Your task to perform on an android device: change the upload size in google photos Image 0: 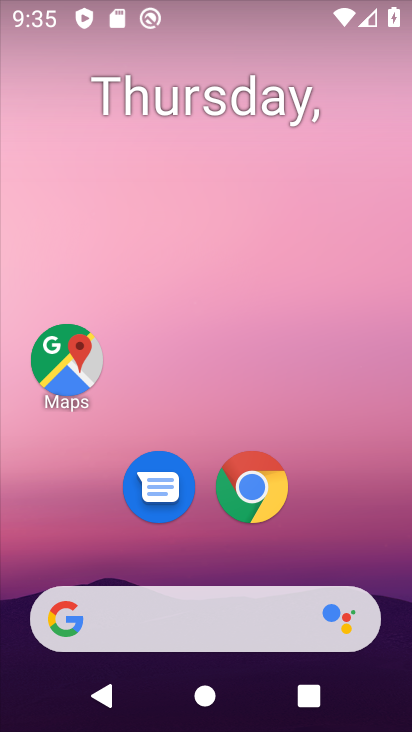
Step 0: drag from (331, 556) to (174, 240)
Your task to perform on an android device: change the upload size in google photos Image 1: 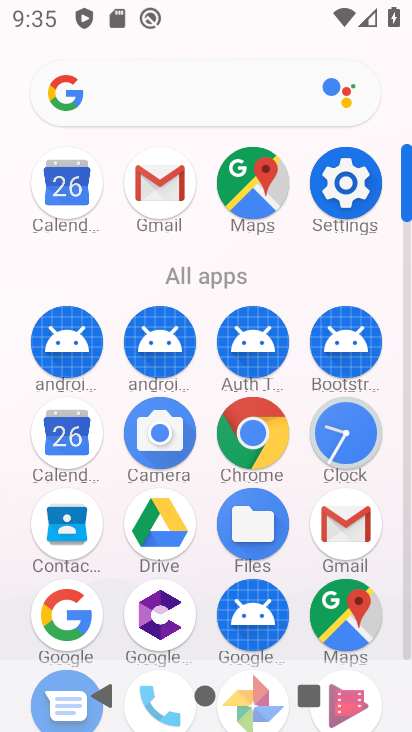
Step 1: click (407, 205)
Your task to perform on an android device: change the upload size in google photos Image 2: 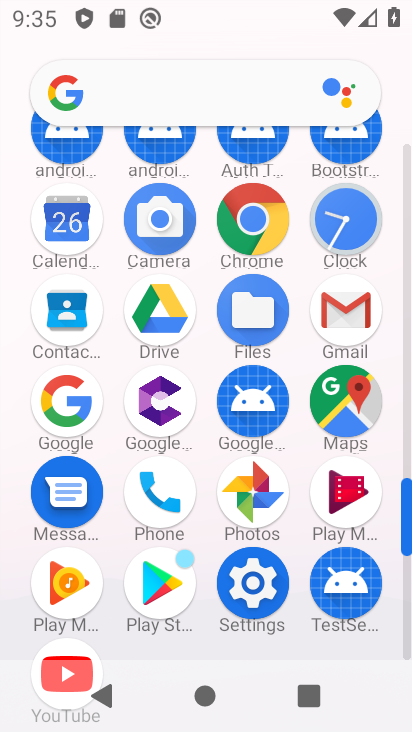
Step 2: click (245, 496)
Your task to perform on an android device: change the upload size in google photos Image 3: 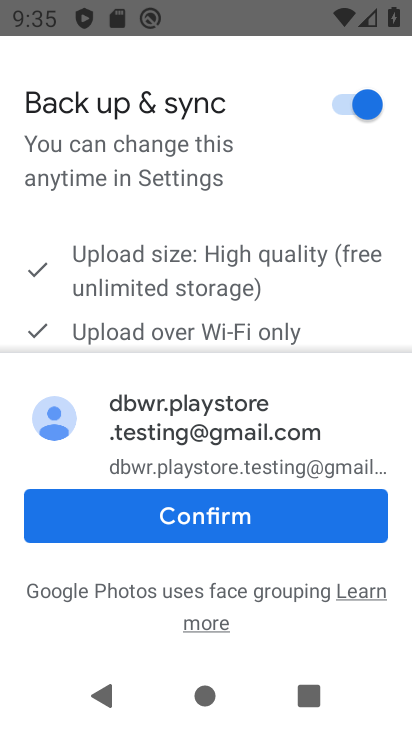
Step 3: click (245, 496)
Your task to perform on an android device: change the upload size in google photos Image 4: 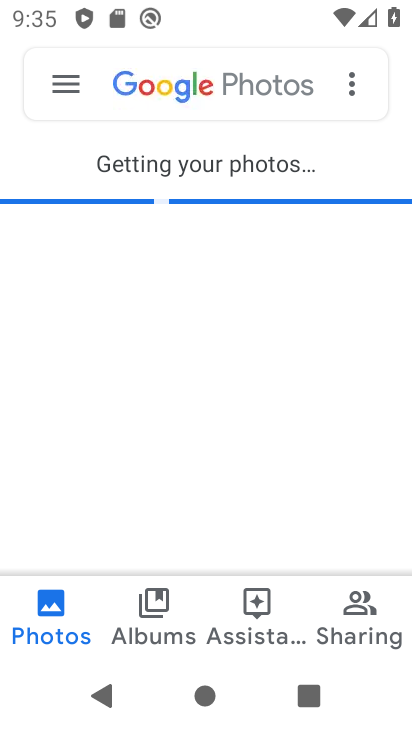
Step 4: click (41, 82)
Your task to perform on an android device: change the upload size in google photos Image 5: 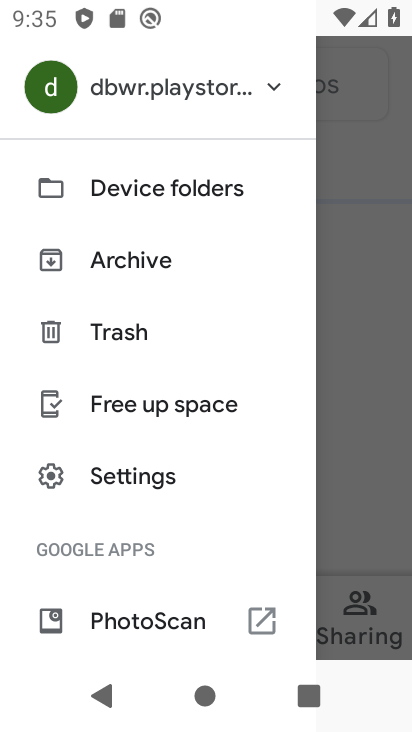
Step 5: click (112, 481)
Your task to perform on an android device: change the upload size in google photos Image 6: 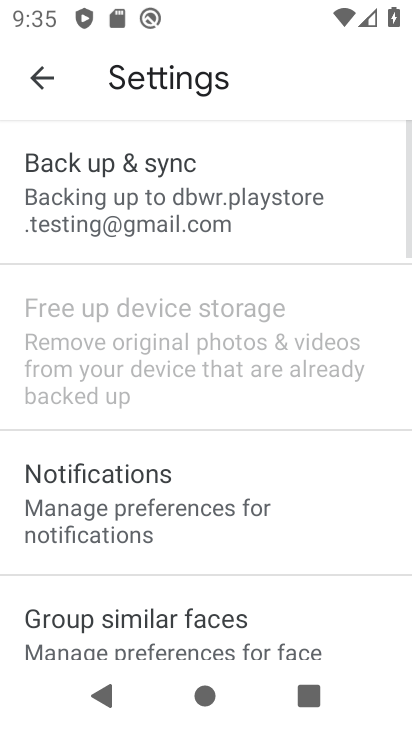
Step 6: click (139, 201)
Your task to perform on an android device: change the upload size in google photos Image 7: 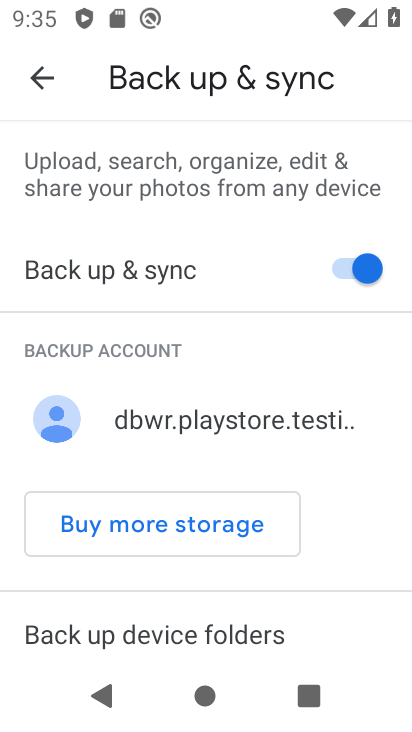
Step 7: drag from (227, 596) to (240, 177)
Your task to perform on an android device: change the upload size in google photos Image 8: 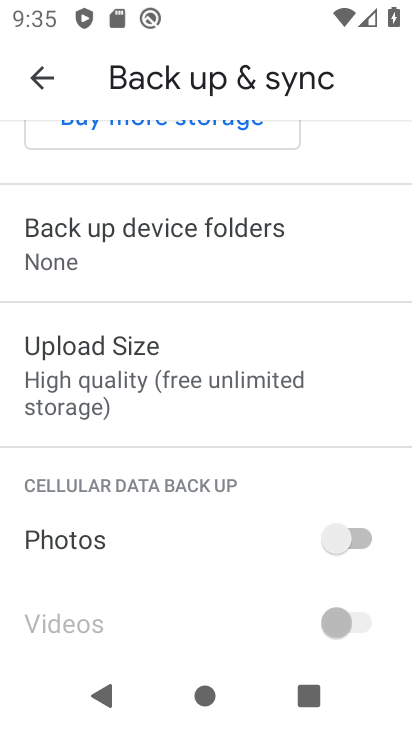
Step 8: click (182, 381)
Your task to perform on an android device: change the upload size in google photos Image 9: 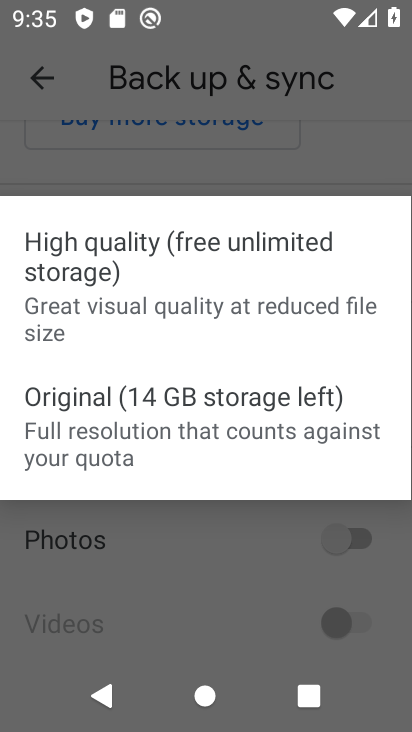
Step 9: click (155, 428)
Your task to perform on an android device: change the upload size in google photos Image 10: 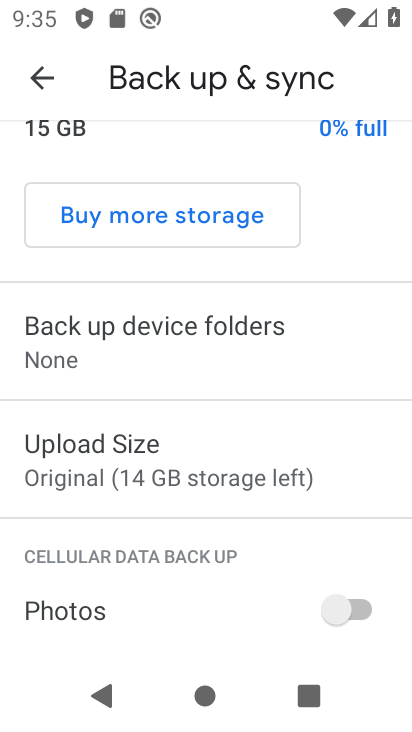
Step 10: task complete